Your task to perform on an android device: Search for flights from Buenos aires to Tokyo Image 0: 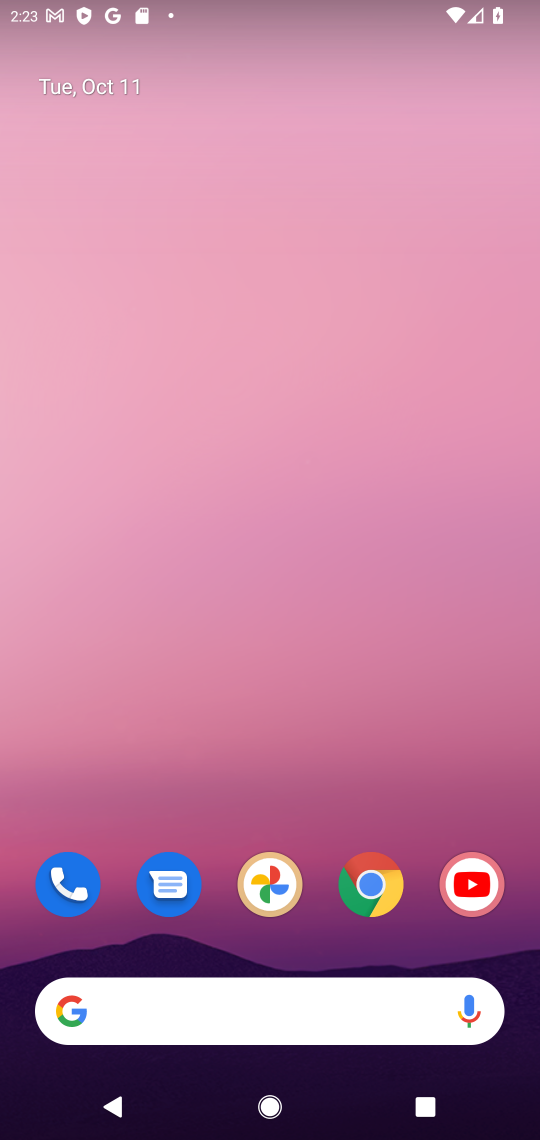
Step 0: click (368, 885)
Your task to perform on an android device: Search for flights from Buenos aires to Tokyo Image 1: 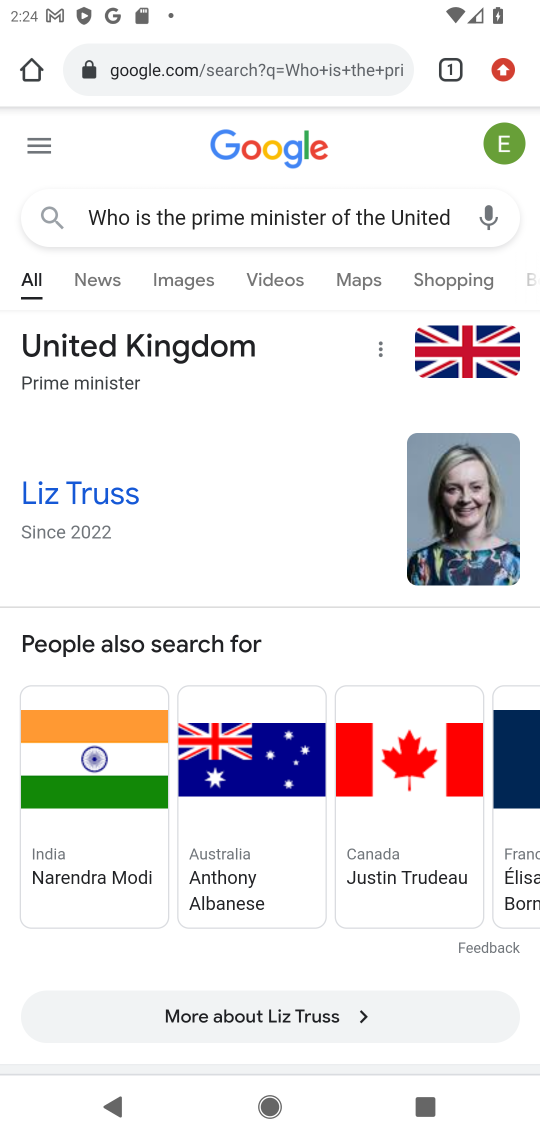
Step 1: click (346, 64)
Your task to perform on an android device: Search for flights from Buenos aires to Tokyo Image 2: 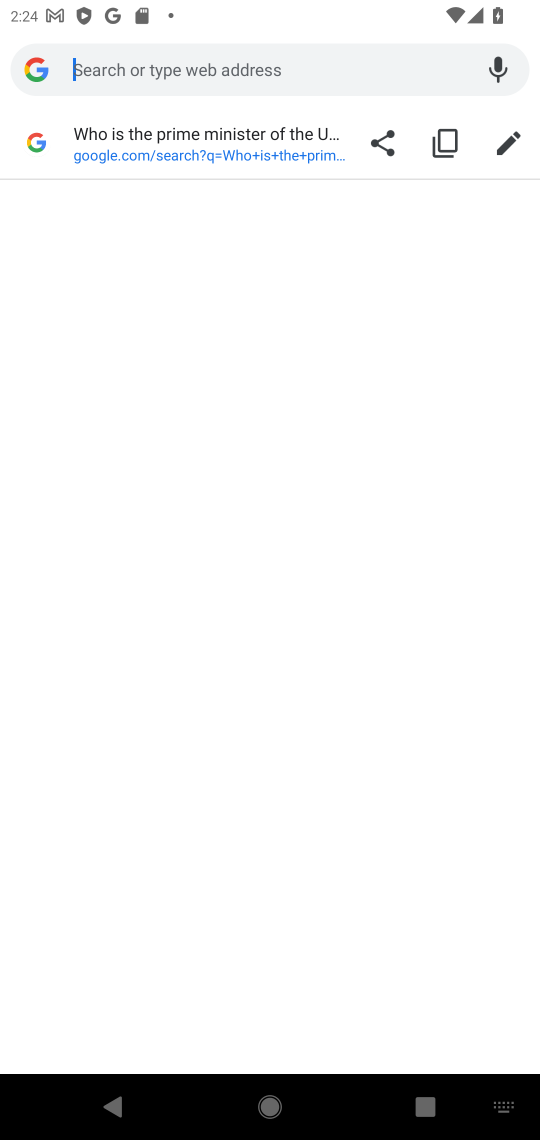
Step 2: type "flights from Buenos aires to Tokyo"
Your task to perform on an android device: Search for flights from Buenos aires to Tokyo Image 3: 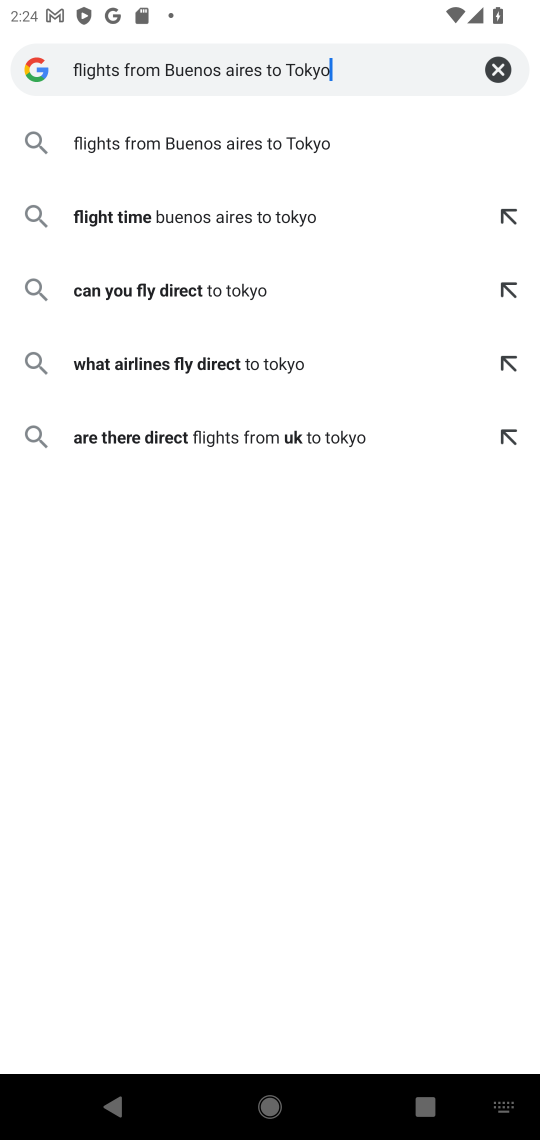
Step 3: click (285, 134)
Your task to perform on an android device: Search for flights from Buenos aires to Tokyo Image 4: 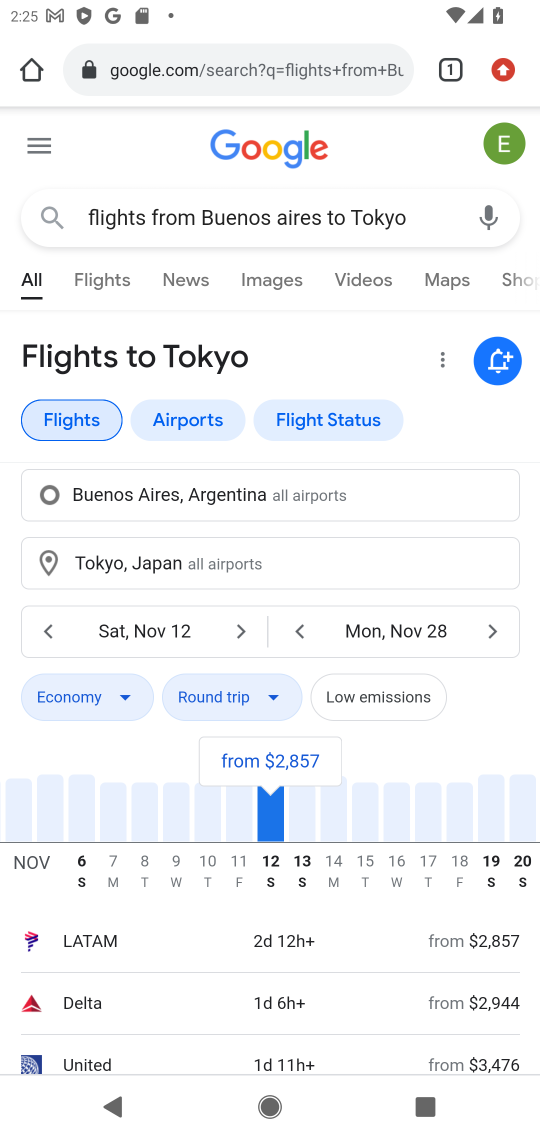
Step 4: task complete